Your task to perform on an android device: Check the news Image 0: 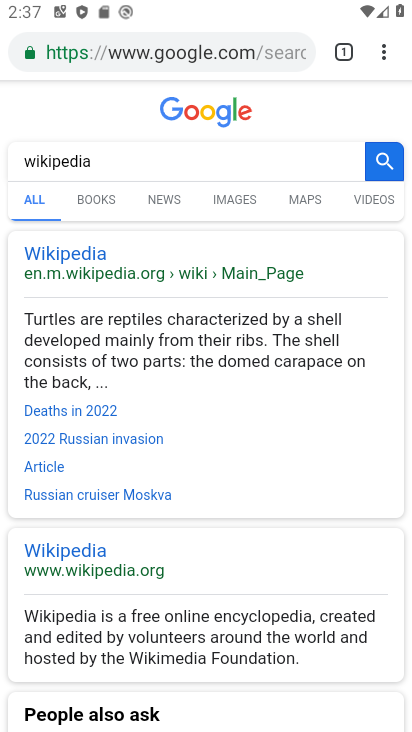
Step 0: press home button
Your task to perform on an android device: Check the news Image 1: 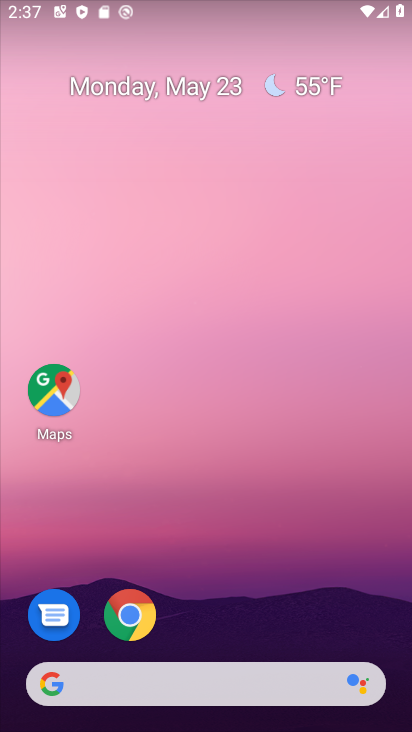
Step 1: task complete